Your task to perform on an android device: Open battery settings Image 0: 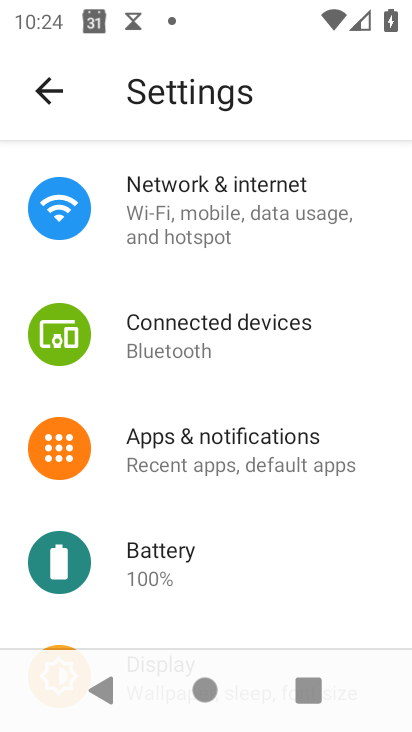
Step 0: click (211, 566)
Your task to perform on an android device: Open battery settings Image 1: 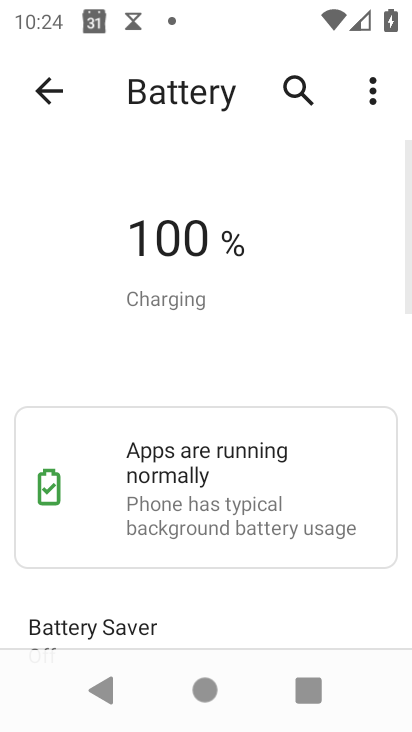
Step 1: task complete